Your task to perform on an android device: What's on my calendar tomorrow? Image 0: 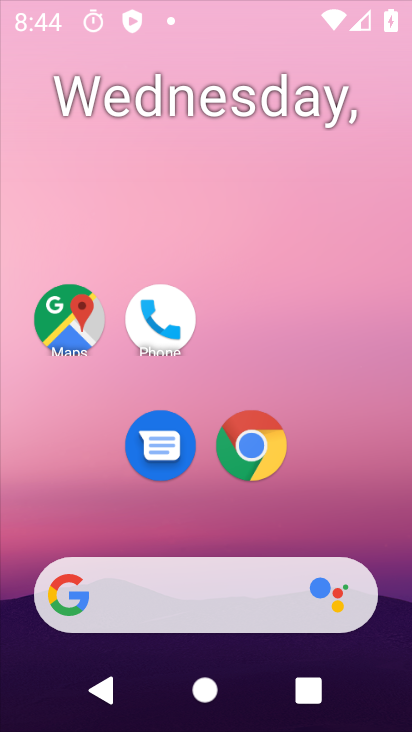
Step 0: drag from (381, 122) to (367, 0)
Your task to perform on an android device: What's on my calendar tomorrow? Image 1: 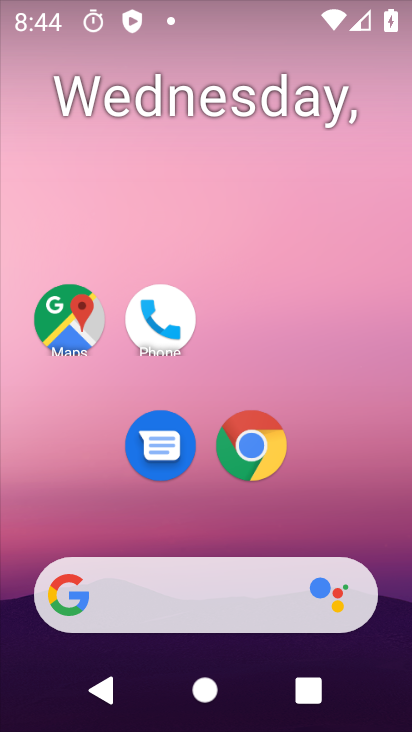
Step 1: drag from (280, 197) to (142, 0)
Your task to perform on an android device: What's on my calendar tomorrow? Image 2: 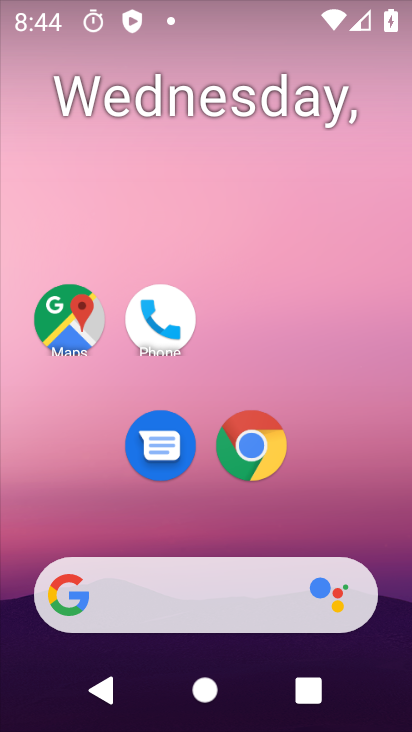
Step 2: drag from (177, 523) to (202, 3)
Your task to perform on an android device: What's on my calendar tomorrow? Image 3: 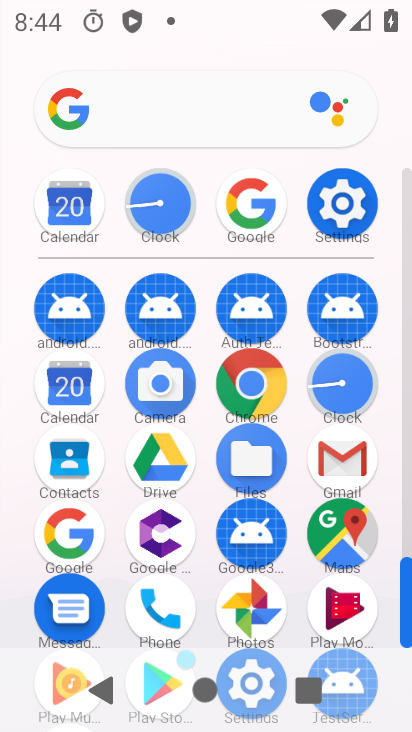
Step 3: click (70, 390)
Your task to perform on an android device: What's on my calendar tomorrow? Image 4: 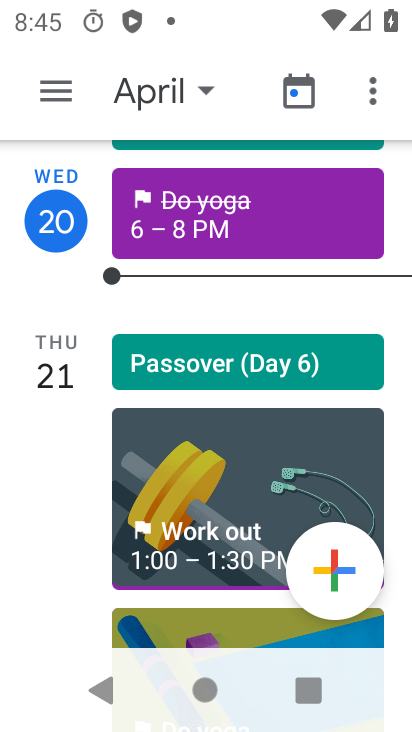
Step 4: task complete